Your task to perform on an android device: Open Maps and search for coffee Image 0: 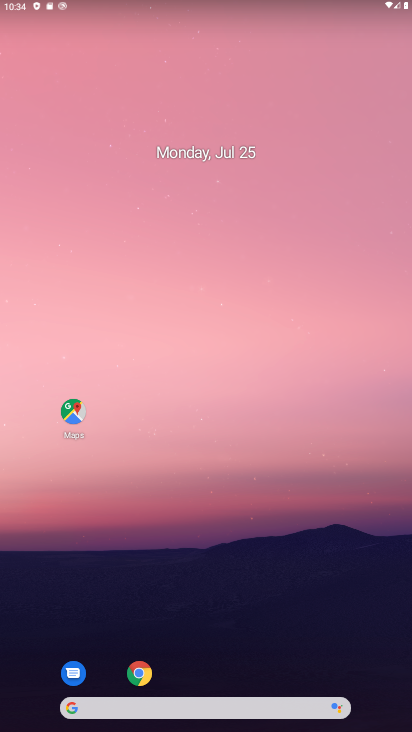
Step 0: press home button
Your task to perform on an android device: Open Maps and search for coffee Image 1: 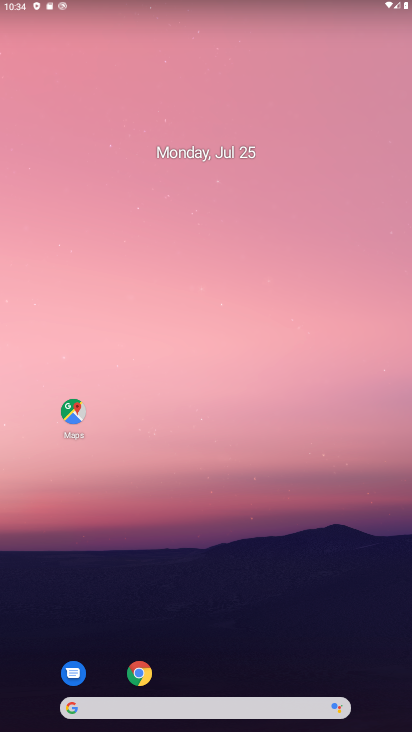
Step 1: click (70, 411)
Your task to perform on an android device: Open Maps and search for coffee Image 2: 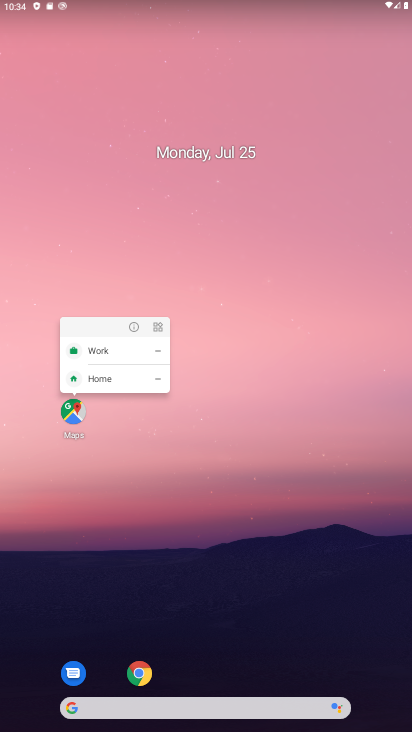
Step 2: click (74, 406)
Your task to perform on an android device: Open Maps and search for coffee Image 3: 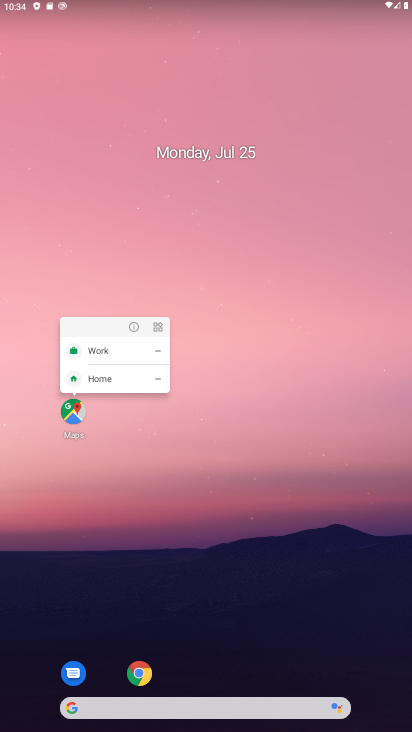
Step 3: click (68, 404)
Your task to perform on an android device: Open Maps and search for coffee Image 4: 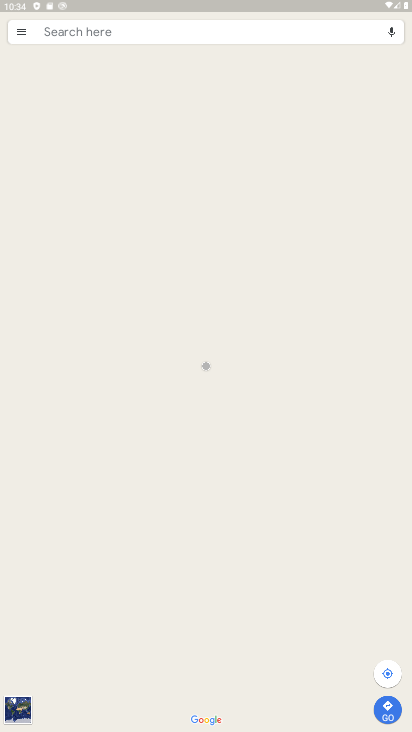
Step 4: click (90, 29)
Your task to perform on an android device: Open Maps and search for coffee Image 5: 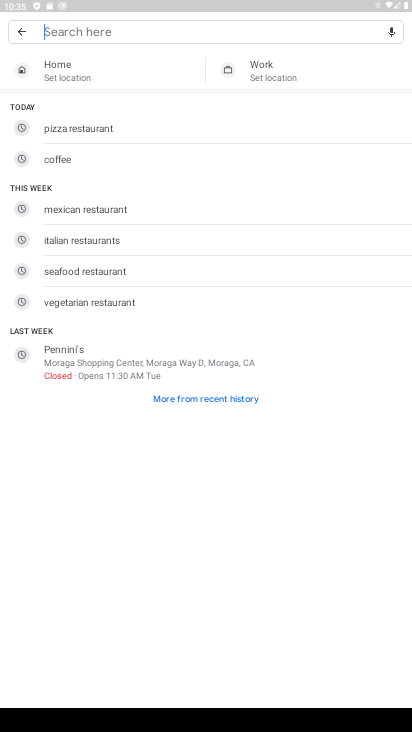
Step 5: type "coffee"
Your task to perform on an android device: Open Maps and search for coffee Image 6: 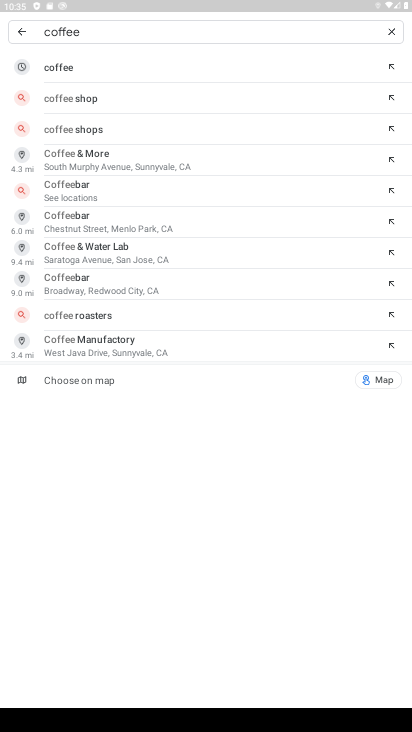
Step 6: click (76, 70)
Your task to perform on an android device: Open Maps and search for coffee Image 7: 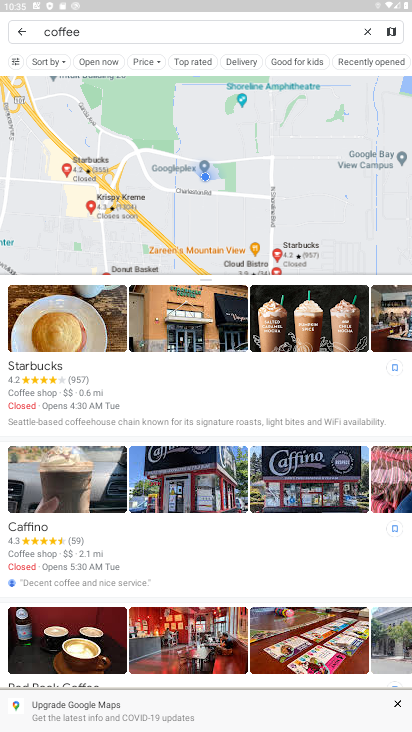
Step 7: task complete